Your task to perform on an android device: turn smart compose on in the gmail app Image 0: 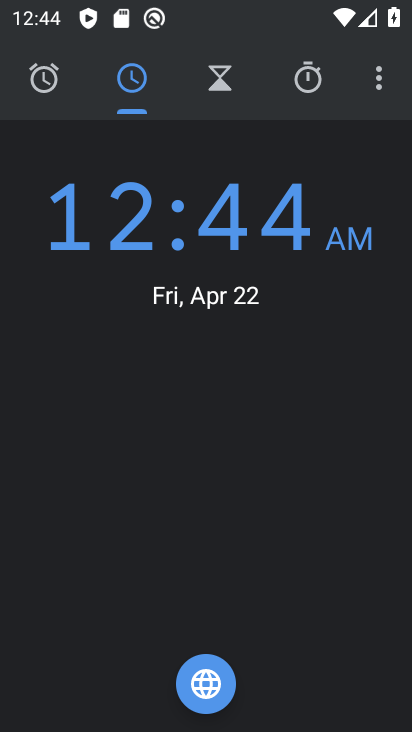
Step 0: press home button
Your task to perform on an android device: turn smart compose on in the gmail app Image 1: 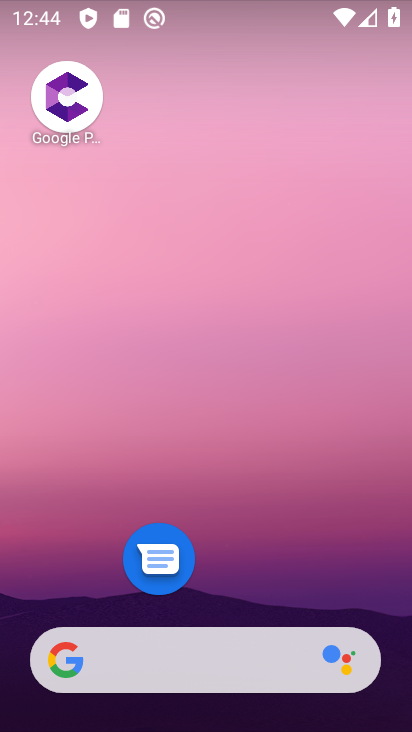
Step 1: drag from (229, 727) to (217, 134)
Your task to perform on an android device: turn smart compose on in the gmail app Image 2: 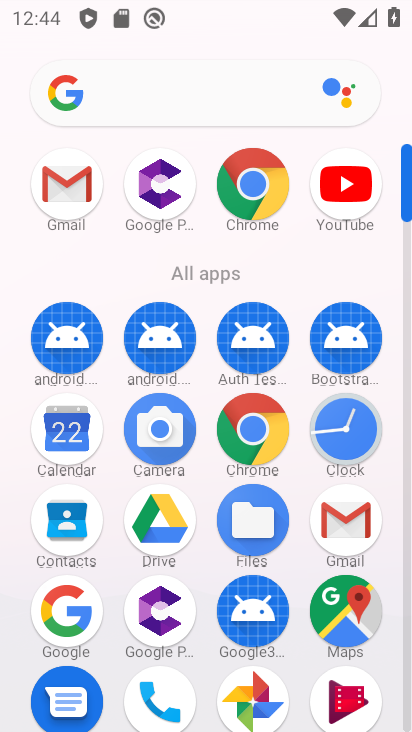
Step 2: click (63, 179)
Your task to perform on an android device: turn smart compose on in the gmail app Image 3: 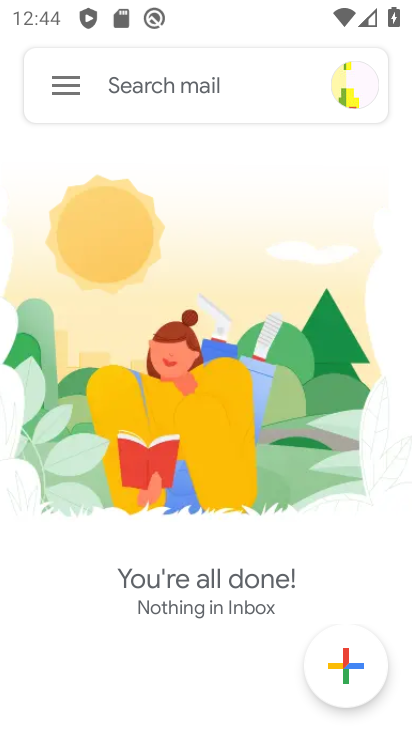
Step 3: click (62, 82)
Your task to perform on an android device: turn smart compose on in the gmail app Image 4: 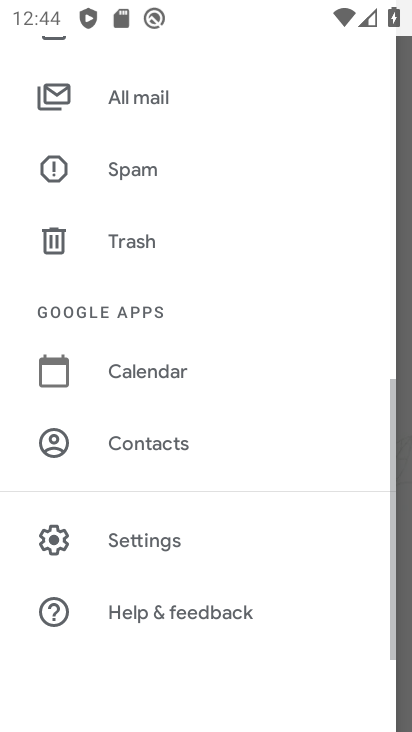
Step 4: click (134, 538)
Your task to perform on an android device: turn smart compose on in the gmail app Image 5: 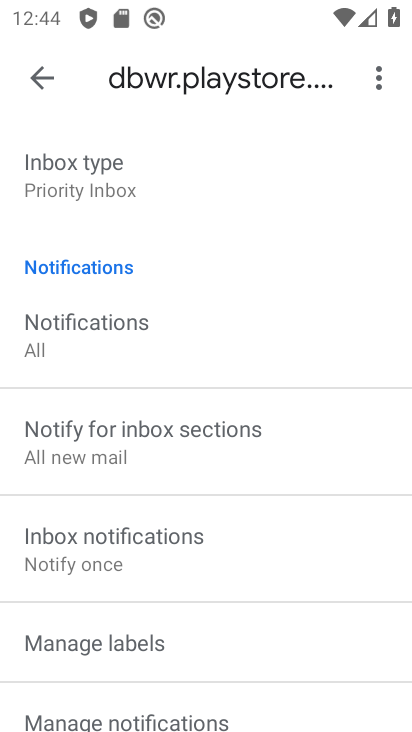
Step 5: task complete